Your task to perform on an android device: toggle notification dots Image 0: 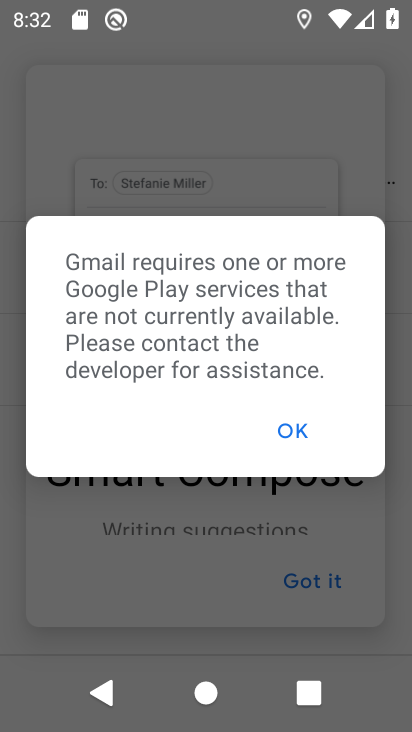
Step 0: press home button
Your task to perform on an android device: toggle notification dots Image 1: 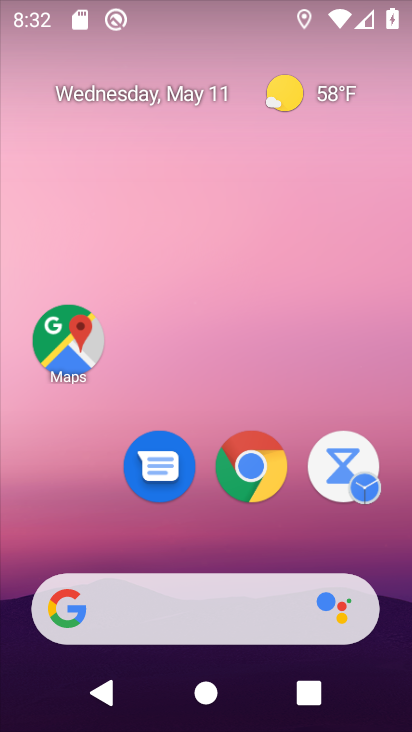
Step 1: drag from (205, 537) to (243, 23)
Your task to perform on an android device: toggle notification dots Image 2: 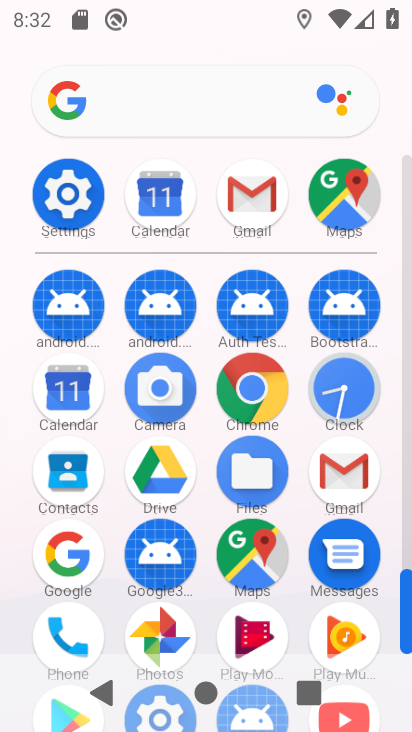
Step 2: click (60, 208)
Your task to perform on an android device: toggle notification dots Image 3: 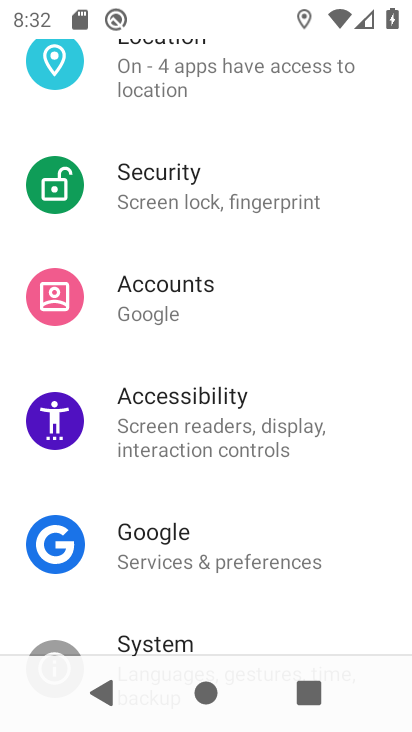
Step 3: drag from (181, 316) to (284, 534)
Your task to perform on an android device: toggle notification dots Image 4: 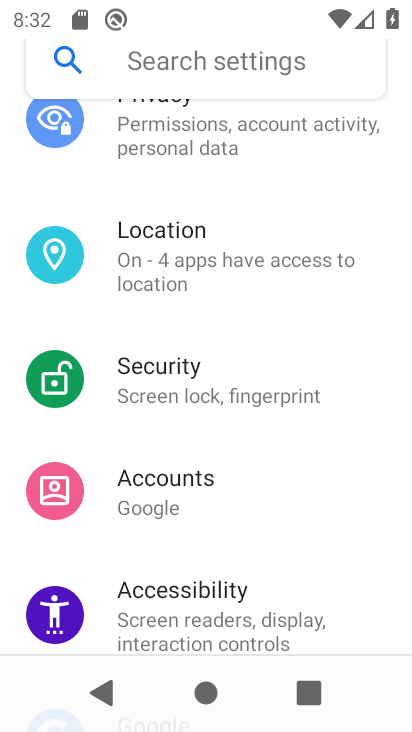
Step 4: drag from (285, 356) to (268, 595)
Your task to perform on an android device: toggle notification dots Image 5: 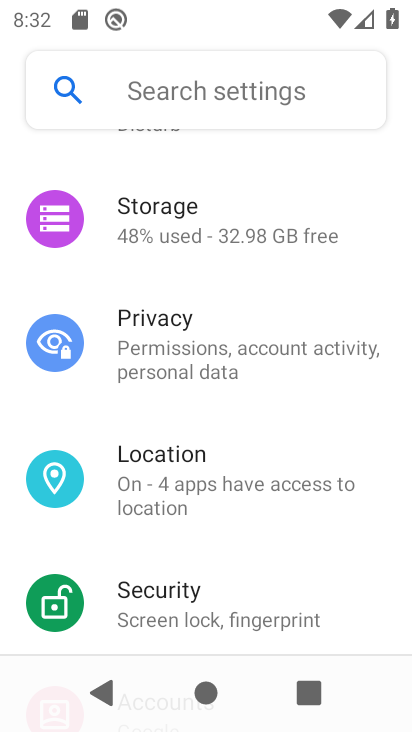
Step 5: drag from (274, 395) to (290, 603)
Your task to perform on an android device: toggle notification dots Image 6: 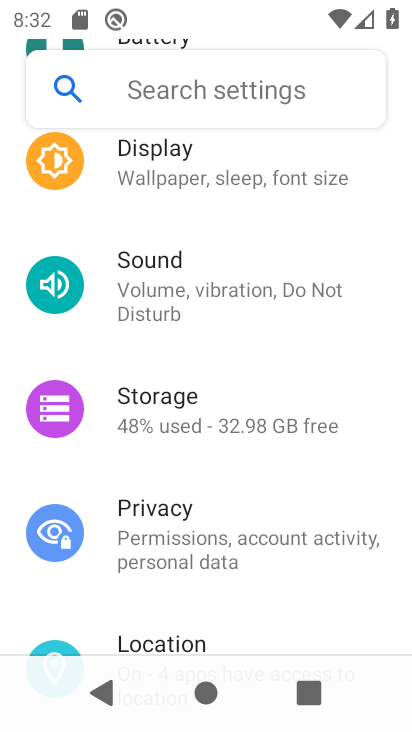
Step 6: drag from (295, 417) to (281, 661)
Your task to perform on an android device: toggle notification dots Image 7: 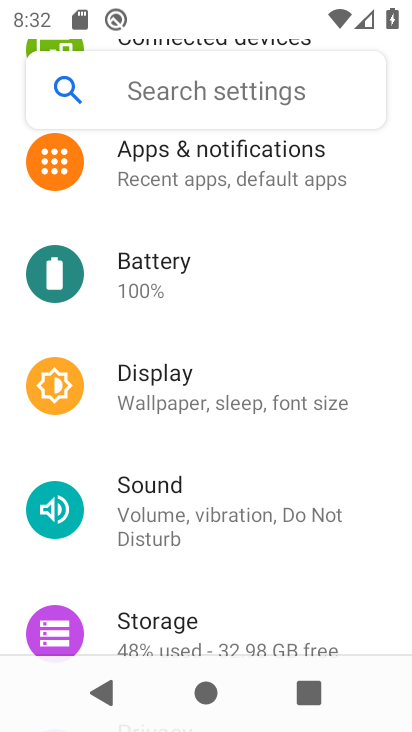
Step 7: drag from (372, 428) to (411, 579)
Your task to perform on an android device: toggle notification dots Image 8: 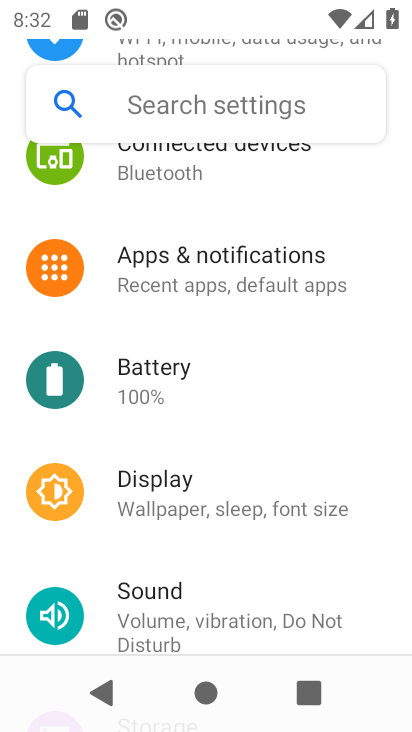
Step 8: click (246, 241)
Your task to perform on an android device: toggle notification dots Image 9: 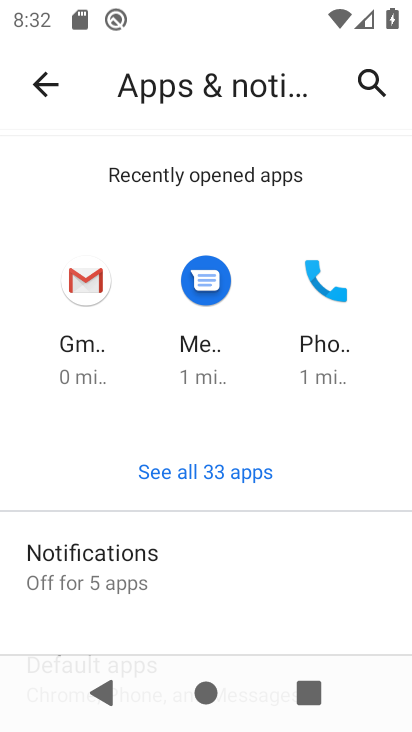
Step 9: drag from (283, 574) to (303, 410)
Your task to perform on an android device: toggle notification dots Image 10: 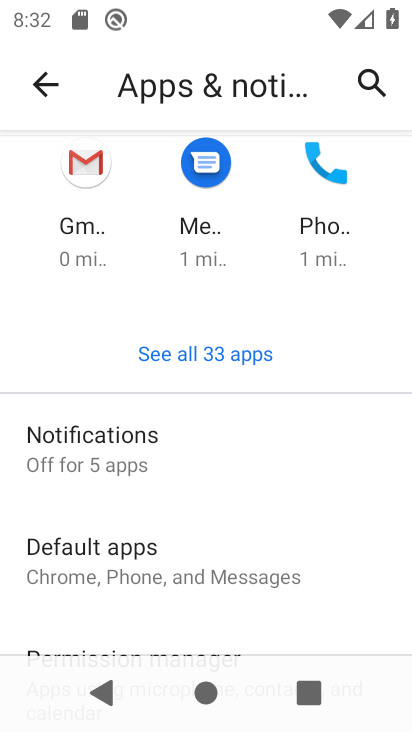
Step 10: click (246, 464)
Your task to perform on an android device: toggle notification dots Image 11: 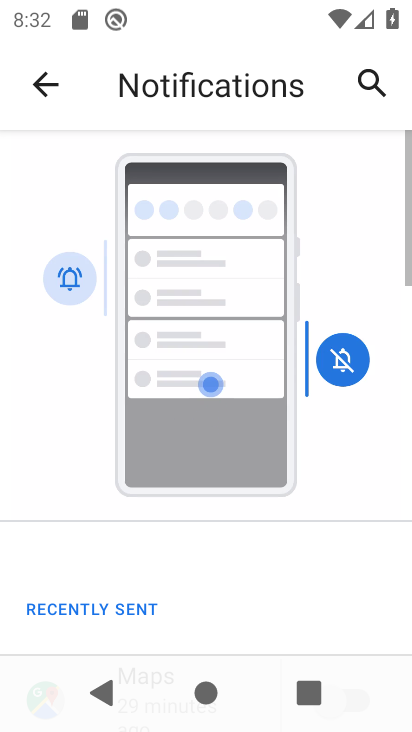
Step 11: drag from (190, 614) to (210, 342)
Your task to perform on an android device: toggle notification dots Image 12: 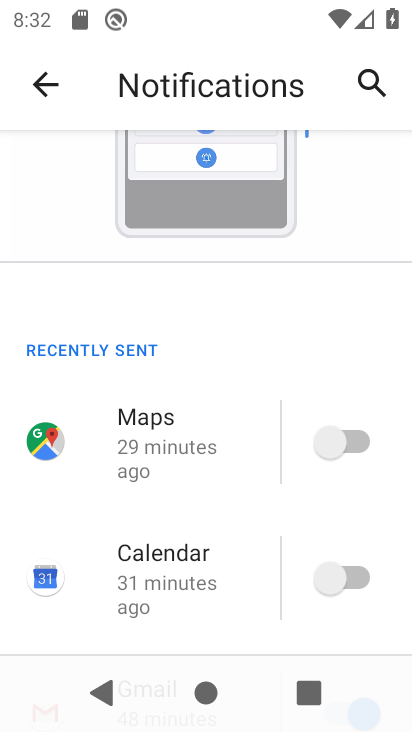
Step 12: drag from (191, 632) to (258, 348)
Your task to perform on an android device: toggle notification dots Image 13: 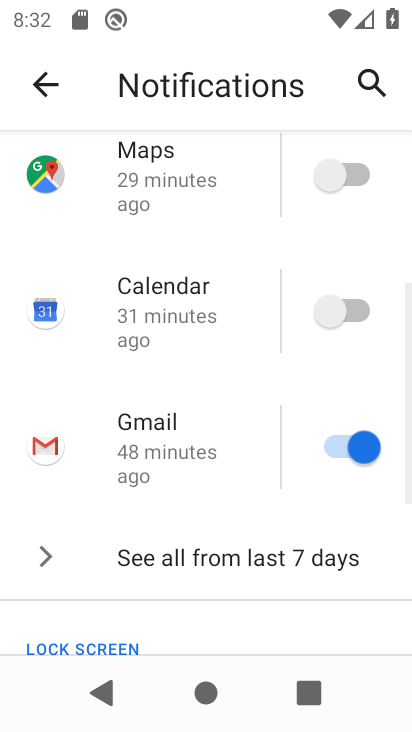
Step 13: drag from (214, 625) to (244, 408)
Your task to perform on an android device: toggle notification dots Image 14: 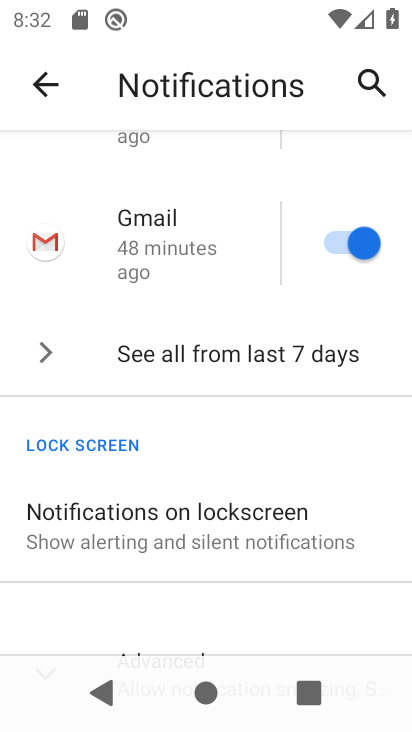
Step 14: drag from (194, 594) to (220, 470)
Your task to perform on an android device: toggle notification dots Image 15: 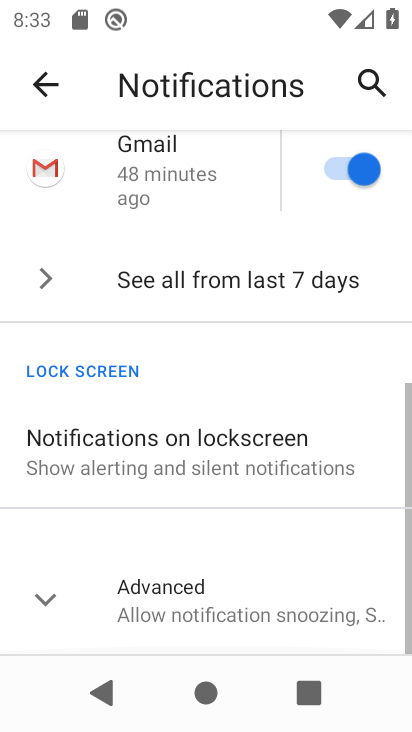
Step 15: click (225, 607)
Your task to perform on an android device: toggle notification dots Image 16: 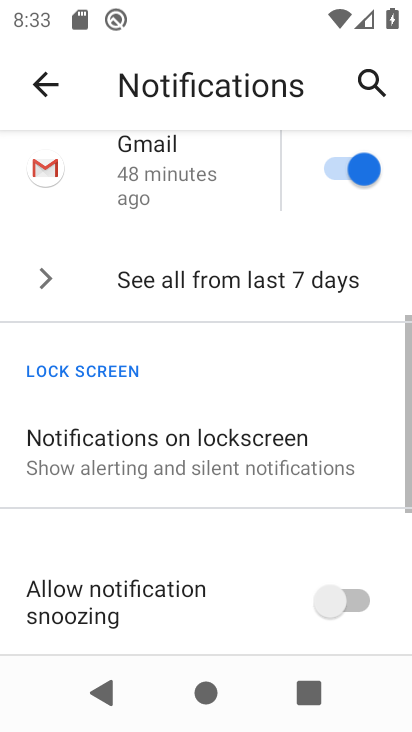
Step 16: drag from (227, 609) to (271, 393)
Your task to perform on an android device: toggle notification dots Image 17: 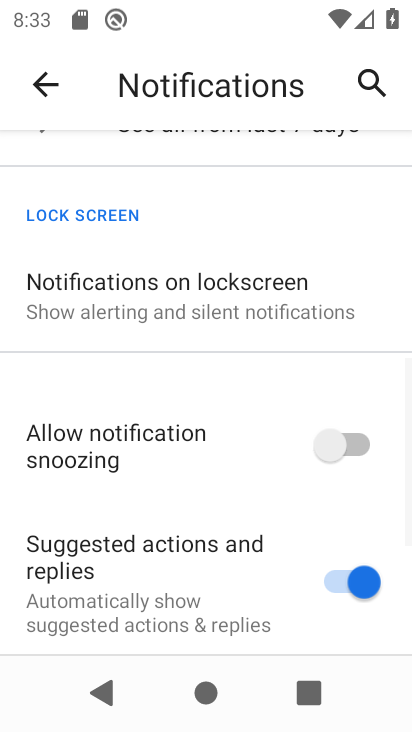
Step 17: drag from (247, 579) to (283, 396)
Your task to perform on an android device: toggle notification dots Image 18: 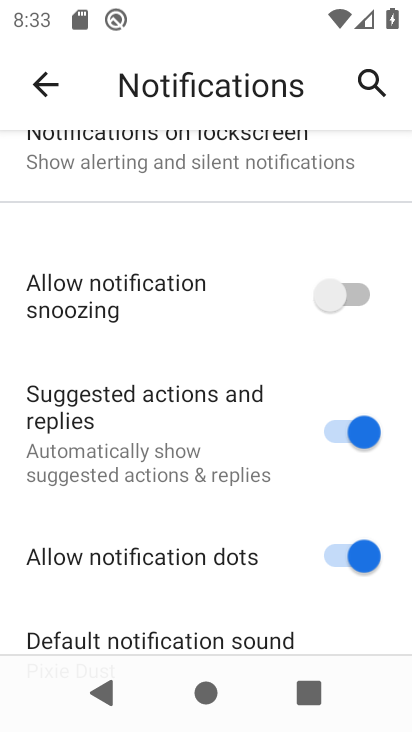
Step 18: click (363, 555)
Your task to perform on an android device: toggle notification dots Image 19: 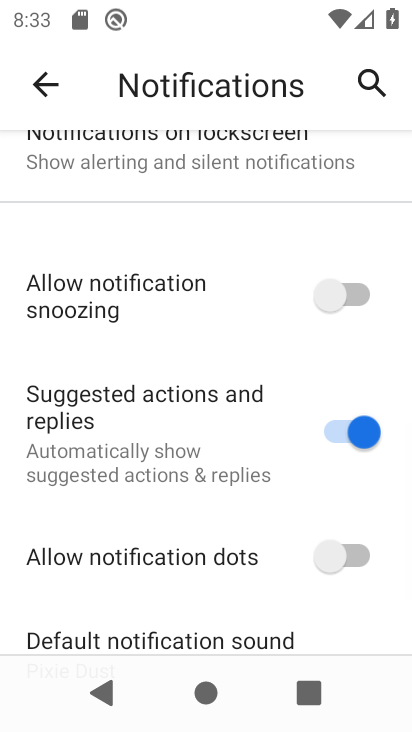
Step 19: task complete